Your task to perform on an android device: stop showing notifications on the lock screen Image 0: 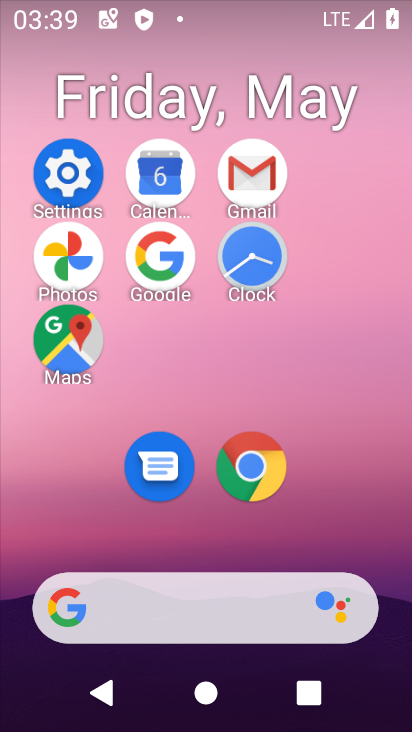
Step 0: click (65, 158)
Your task to perform on an android device: stop showing notifications on the lock screen Image 1: 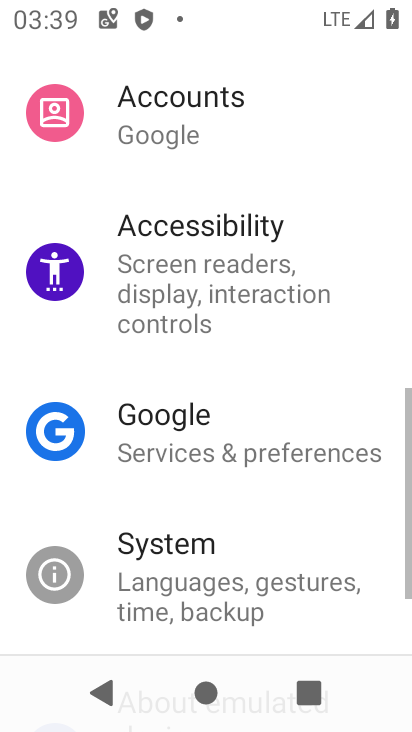
Step 1: drag from (273, 193) to (307, 573)
Your task to perform on an android device: stop showing notifications on the lock screen Image 2: 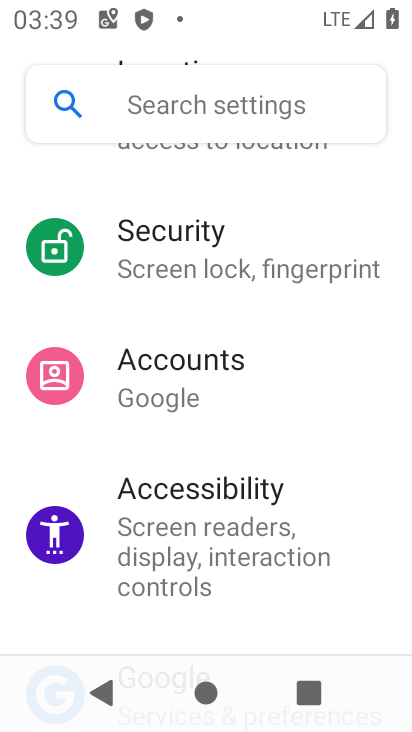
Step 2: drag from (324, 186) to (342, 689)
Your task to perform on an android device: stop showing notifications on the lock screen Image 3: 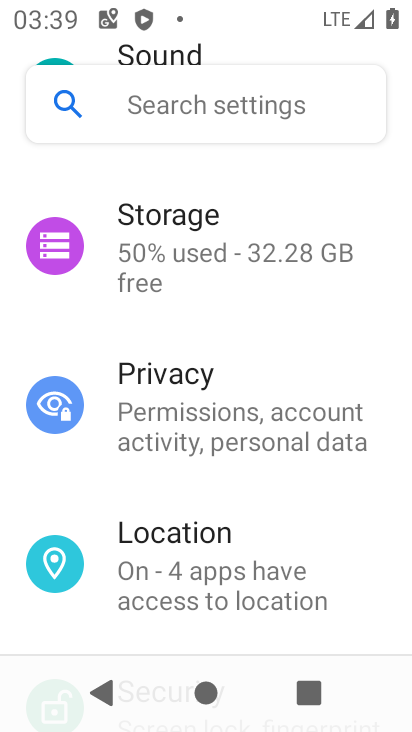
Step 3: drag from (293, 174) to (360, 713)
Your task to perform on an android device: stop showing notifications on the lock screen Image 4: 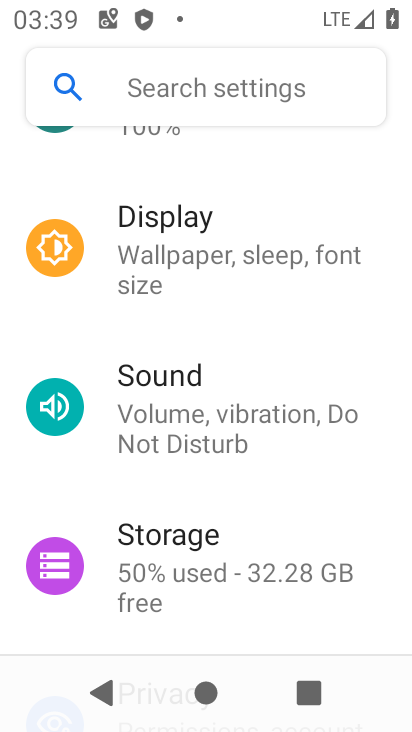
Step 4: drag from (276, 166) to (343, 720)
Your task to perform on an android device: stop showing notifications on the lock screen Image 5: 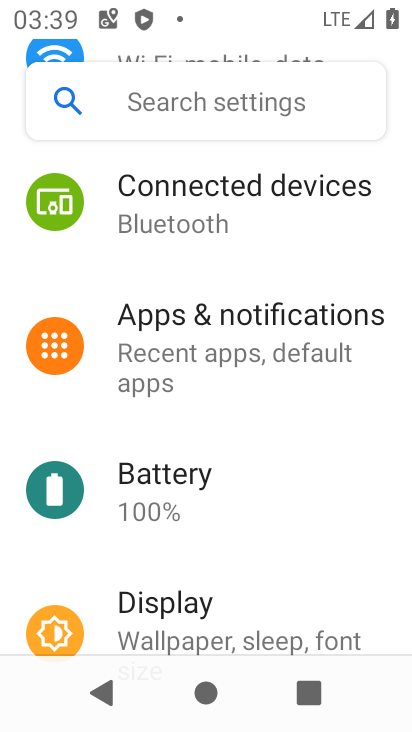
Step 5: click (304, 358)
Your task to perform on an android device: stop showing notifications on the lock screen Image 6: 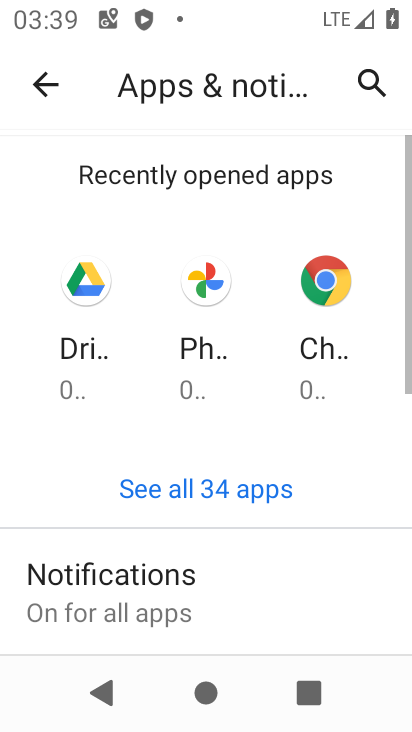
Step 6: click (159, 574)
Your task to perform on an android device: stop showing notifications on the lock screen Image 7: 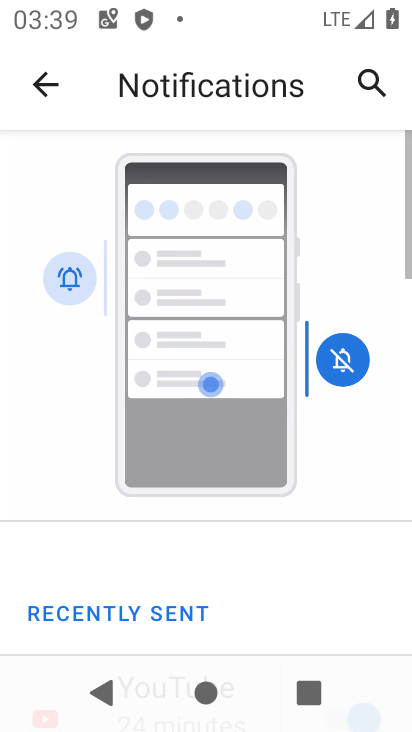
Step 7: drag from (159, 574) to (182, 207)
Your task to perform on an android device: stop showing notifications on the lock screen Image 8: 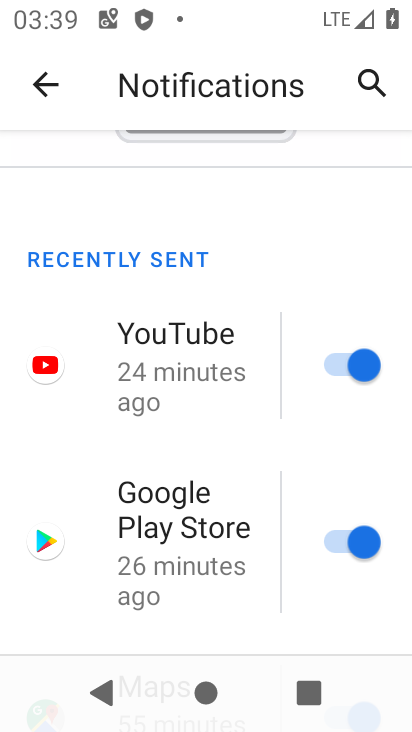
Step 8: drag from (194, 561) to (207, 172)
Your task to perform on an android device: stop showing notifications on the lock screen Image 9: 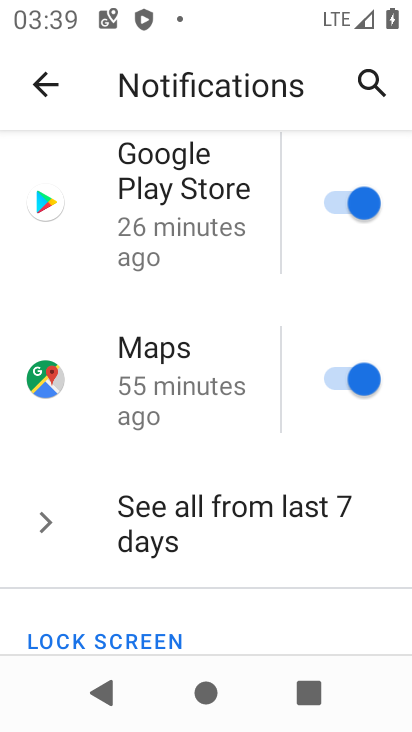
Step 9: drag from (229, 602) to (222, 204)
Your task to perform on an android device: stop showing notifications on the lock screen Image 10: 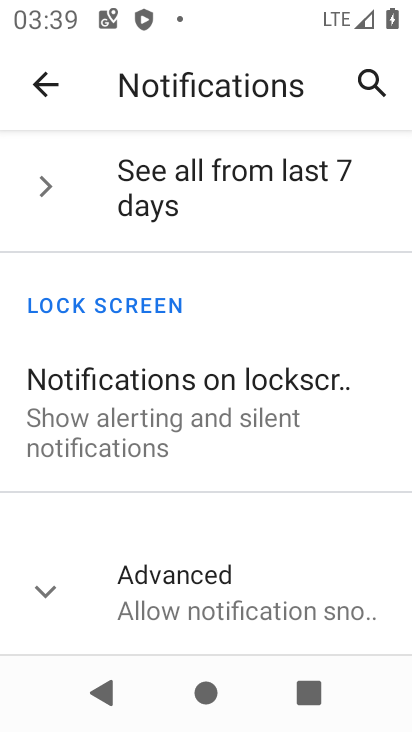
Step 10: click (205, 430)
Your task to perform on an android device: stop showing notifications on the lock screen Image 11: 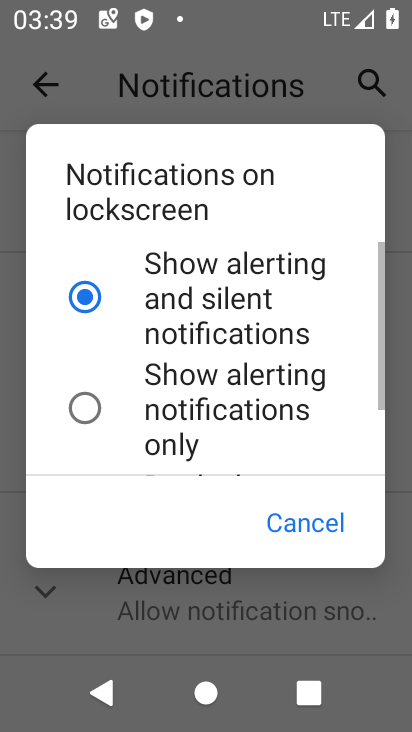
Step 11: click (189, 417)
Your task to perform on an android device: stop showing notifications on the lock screen Image 12: 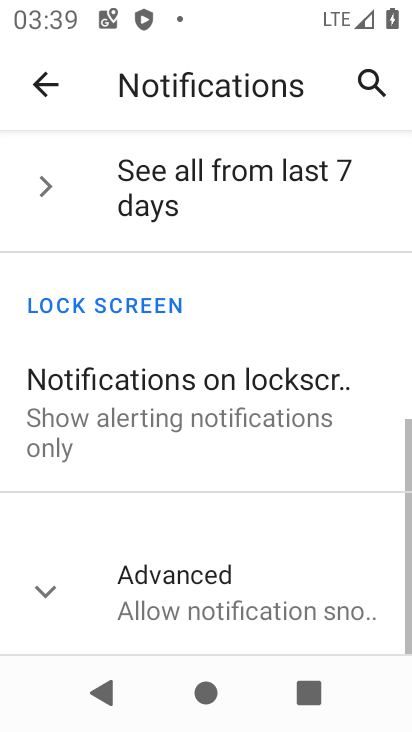
Step 12: task complete